Your task to perform on an android device: turn off picture-in-picture Image 0: 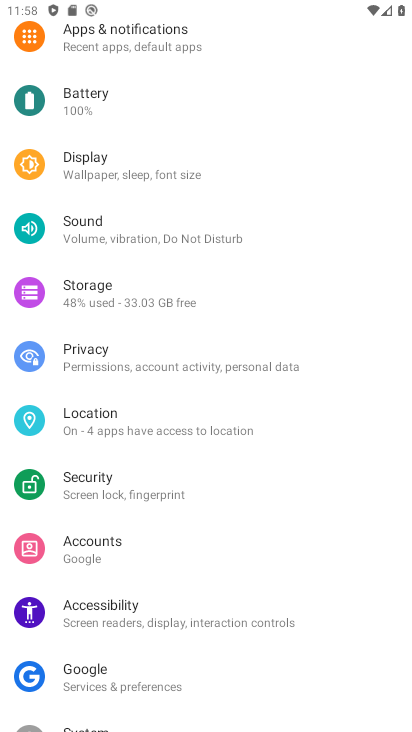
Step 0: press home button
Your task to perform on an android device: turn off picture-in-picture Image 1: 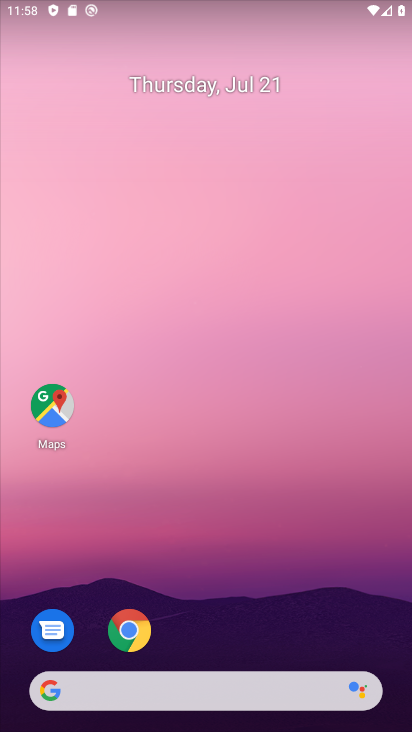
Step 1: drag from (220, 640) to (174, 190)
Your task to perform on an android device: turn off picture-in-picture Image 2: 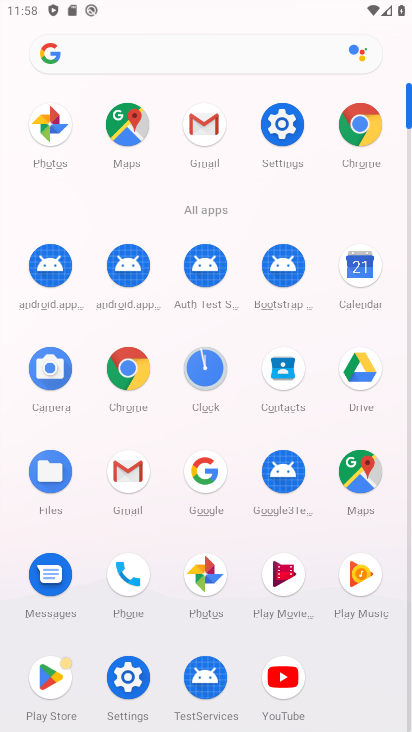
Step 2: click (368, 140)
Your task to perform on an android device: turn off picture-in-picture Image 3: 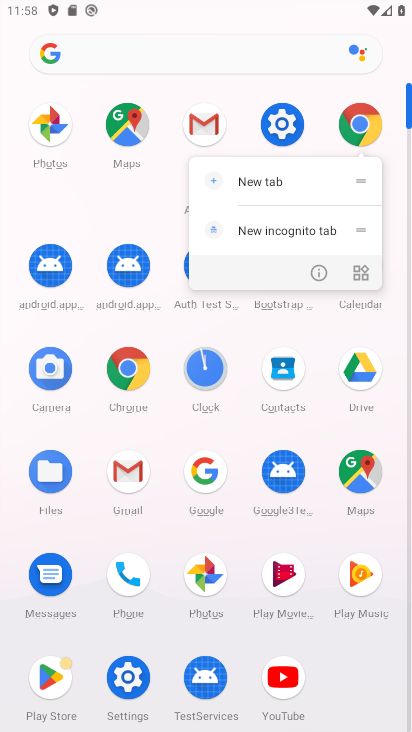
Step 3: click (316, 272)
Your task to perform on an android device: turn off picture-in-picture Image 4: 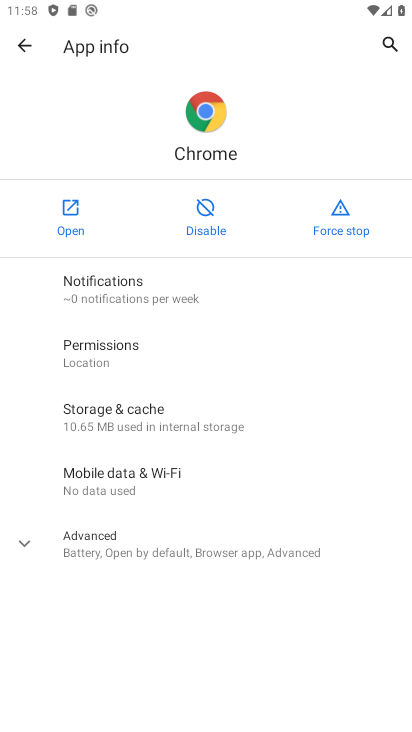
Step 4: click (223, 543)
Your task to perform on an android device: turn off picture-in-picture Image 5: 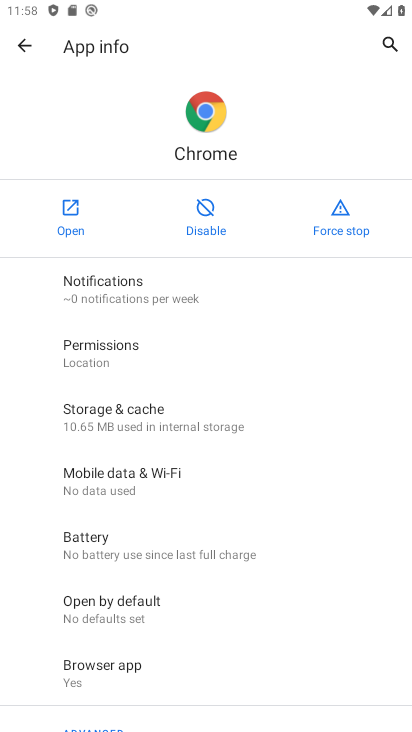
Step 5: drag from (210, 636) to (164, 328)
Your task to perform on an android device: turn off picture-in-picture Image 6: 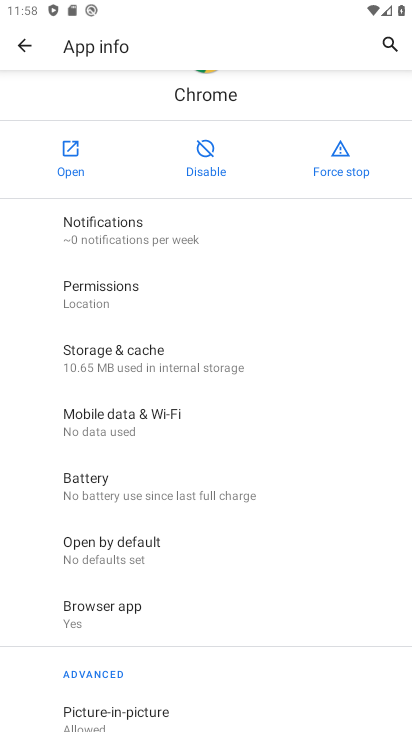
Step 6: click (231, 720)
Your task to perform on an android device: turn off picture-in-picture Image 7: 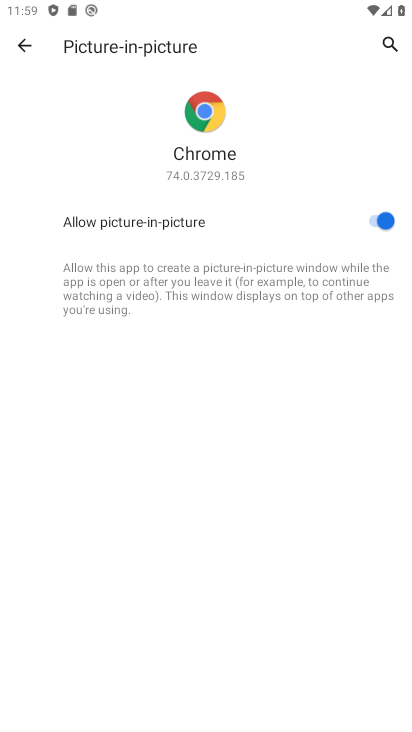
Step 7: click (372, 228)
Your task to perform on an android device: turn off picture-in-picture Image 8: 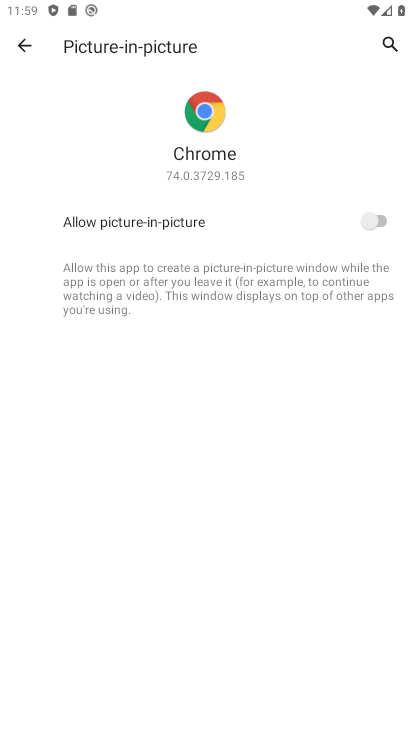
Step 8: task complete